Your task to perform on an android device: Open battery settings Image 0: 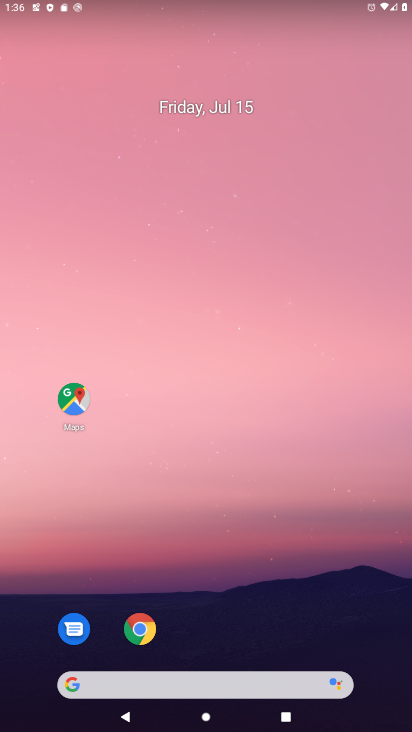
Step 0: drag from (233, 507) to (192, 117)
Your task to perform on an android device: Open battery settings Image 1: 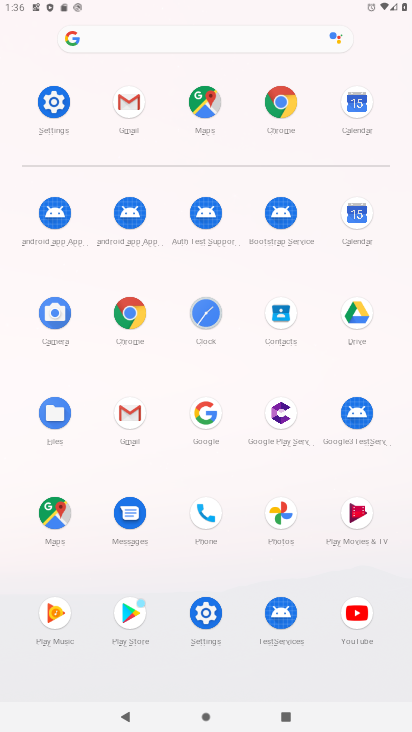
Step 1: click (64, 107)
Your task to perform on an android device: Open battery settings Image 2: 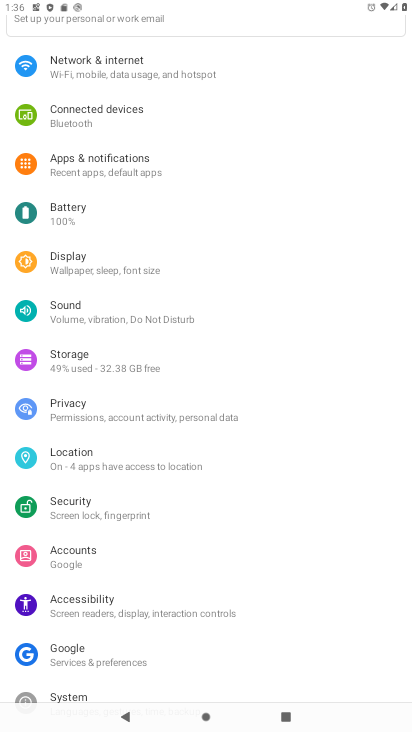
Step 2: click (87, 223)
Your task to perform on an android device: Open battery settings Image 3: 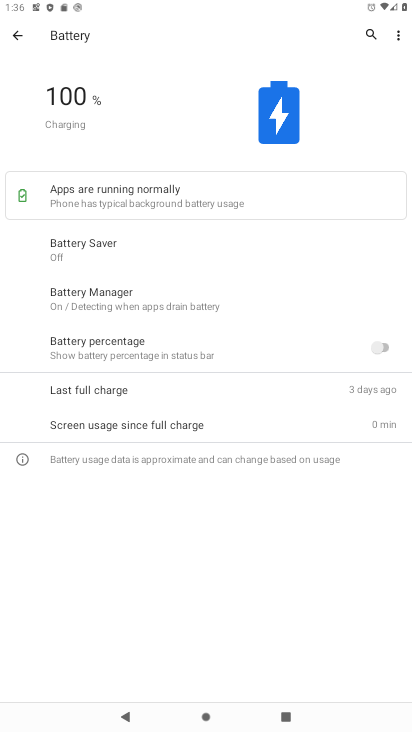
Step 3: task complete